Your task to perform on an android device: star an email in the gmail app Image 0: 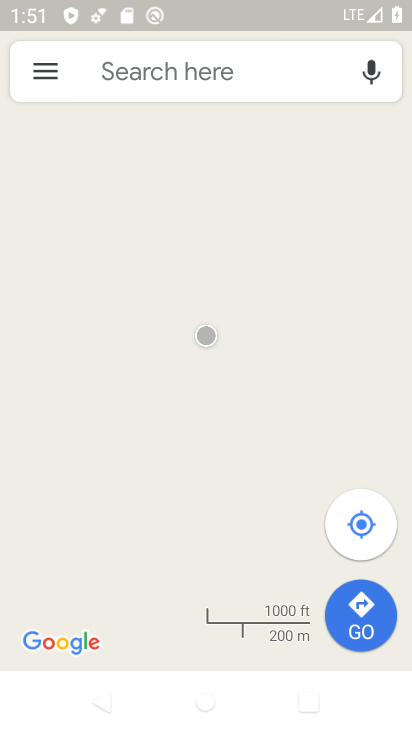
Step 0: press home button
Your task to perform on an android device: star an email in the gmail app Image 1: 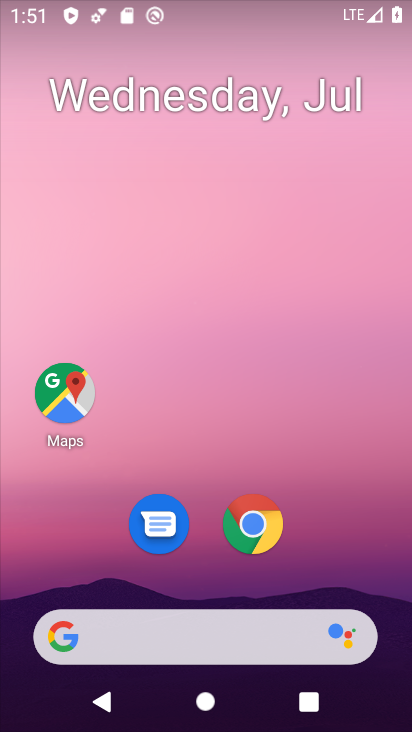
Step 1: drag from (331, 540) to (320, 45)
Your task to perform on an android device: star an email in the gmail app Image 2: 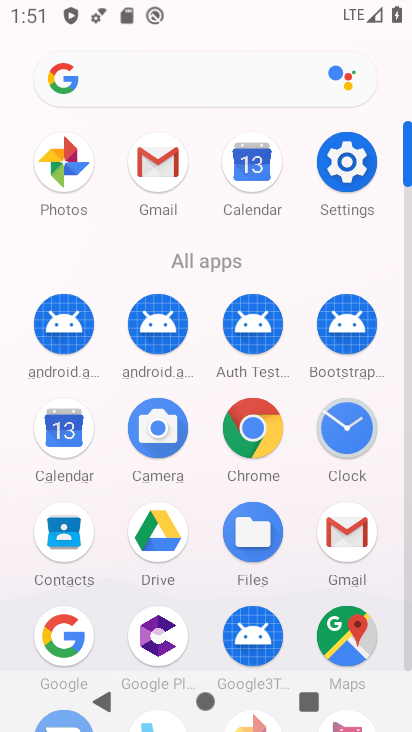
Step 2: click (159, 166)
Your task to perform on an android device: star an email in the gmail app Image 3: 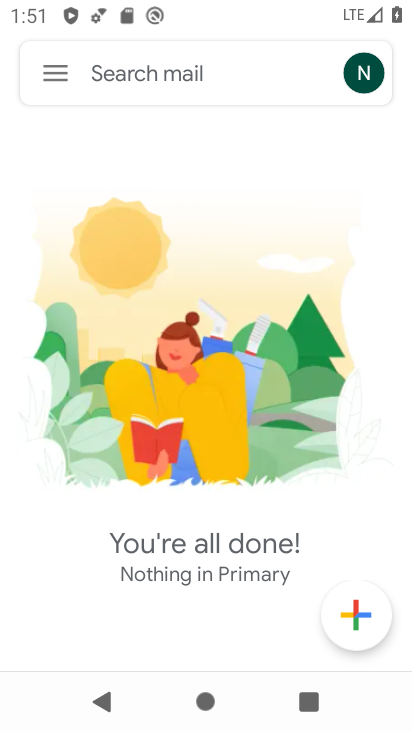
Step 3: click (54, 65)
Your task to perform on an android device: star an email in the gmail app Image 4: 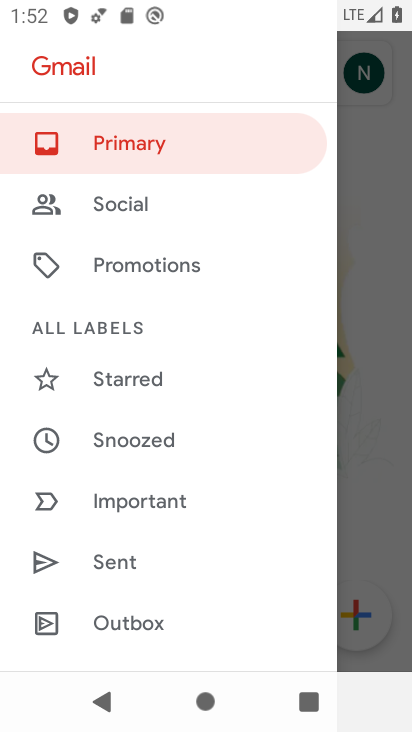
Step 4: drag from (184, 558) to (205, 105)
Your task to perform on an android device: star an email in the gmail app Image 5: 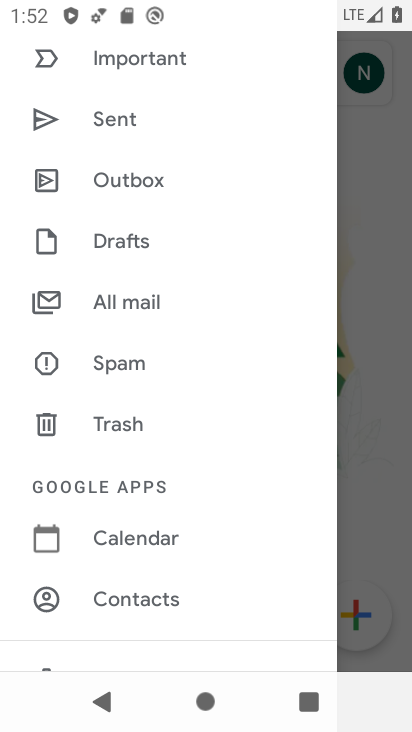
Step 5: click (150, 300)
Your task to perform on an android device: star an email in the gmail app Image 6: 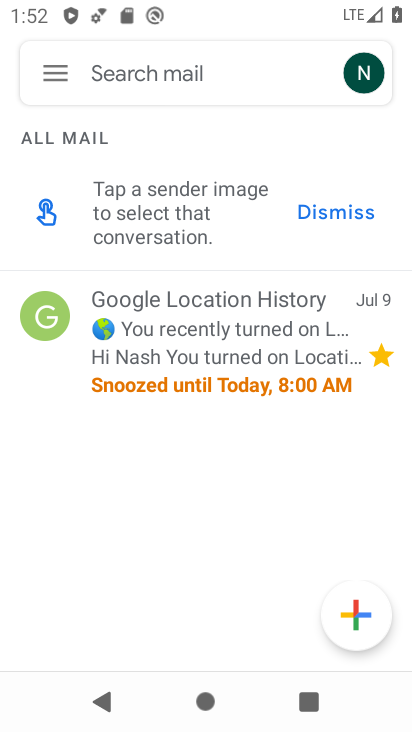
Step 6: task complete